Your task to perform on an android device: set an alarm Image 0: 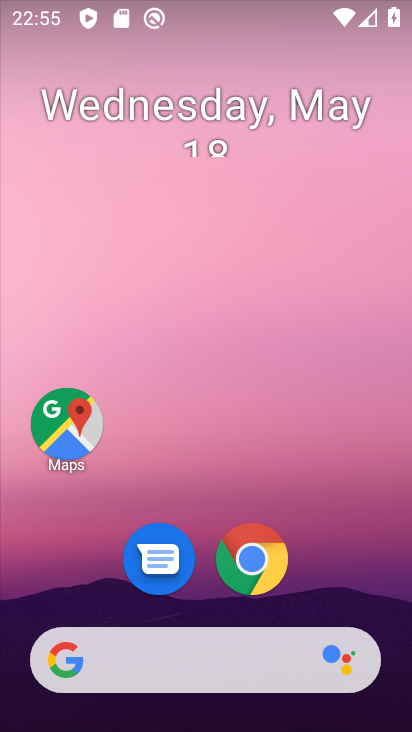
Step 0: drag from (299, 574) to (261, 125)
Your task to perform on an android device: set an alarm Image 1: 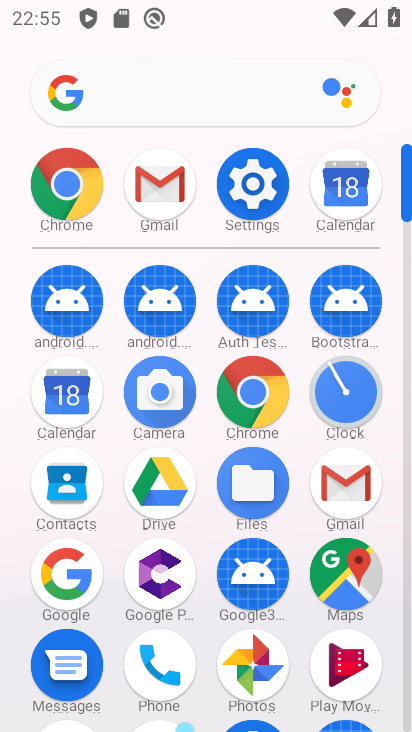
Step 1: click (329, 389)
Your task to perform on an android device: set an alarm Image 2: 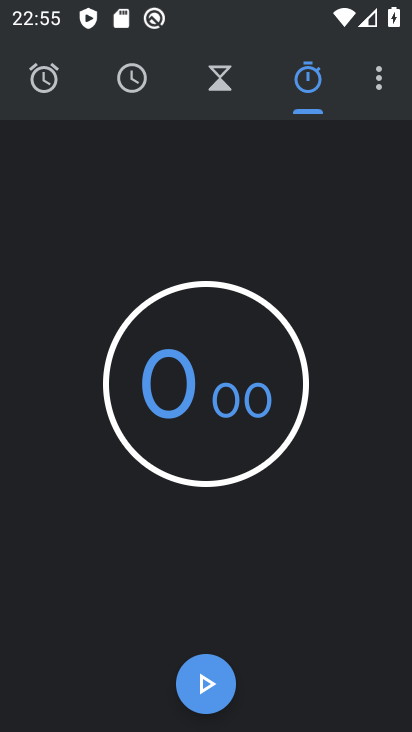
Step 2: click (49, 92)
Your task to perform on an android device: set an alarm Image 3: 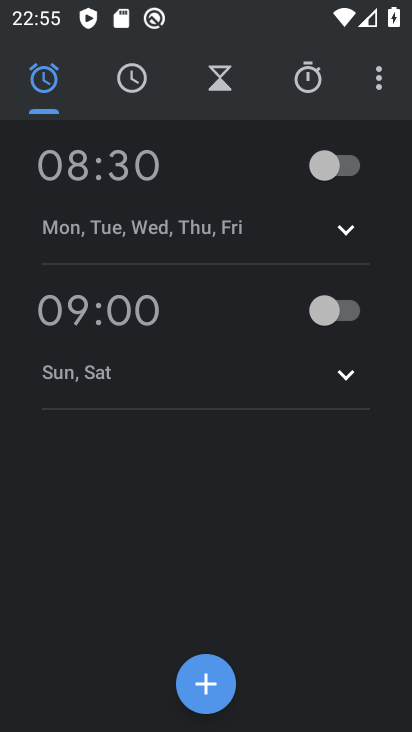
Step 3: click (356, 161)
Your task to perform on an android device: set an alarm Image 4: 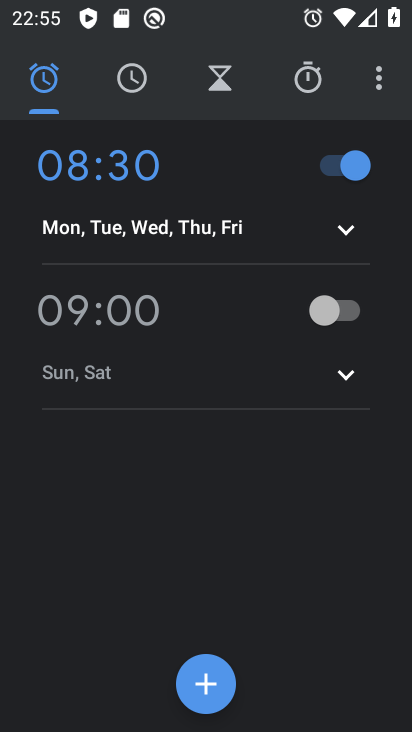
Step 4: task complete